Your task to perform on an android device: see tabs open on other devices in the chrome app Image 0: 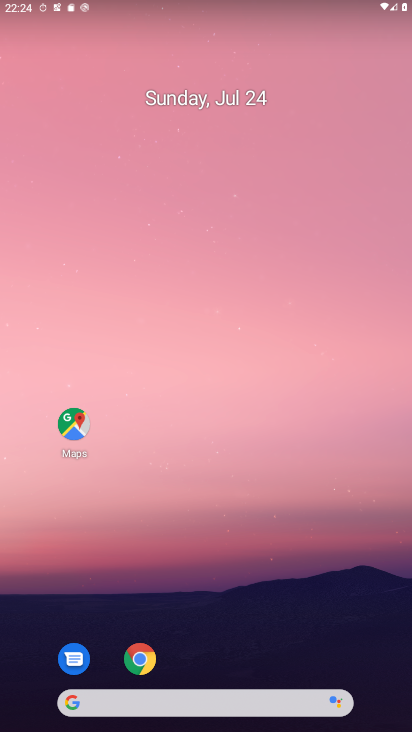
Step 0: drag from (265, 723) to (257, 129)
Your task to perform on an android device: see tabs open on other devices in the chrome app Image 1: 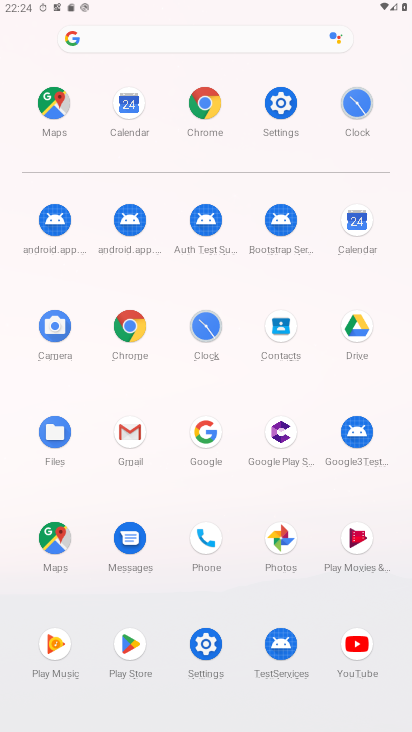
Step 1: click (126, 332)
Your task to perform on an android device: see tabs open on other devices in the chrome app Image 2: 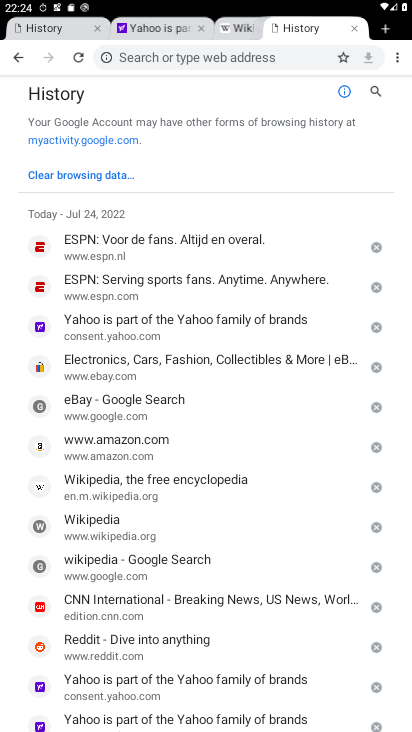
Step 2: click (397, 62)
Your task to perform on an android device: see tabs open on other devices in the chrome app Image 3: 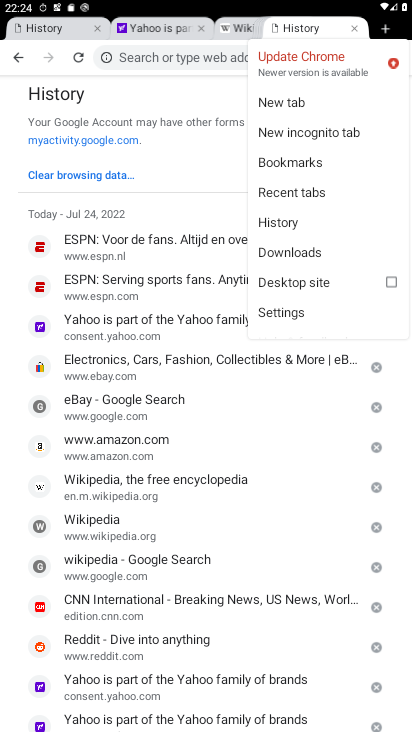
Step 3: click (295, 192)
Your task to perform on an android device: see tabs open on other devices in the chrome app Image 4: 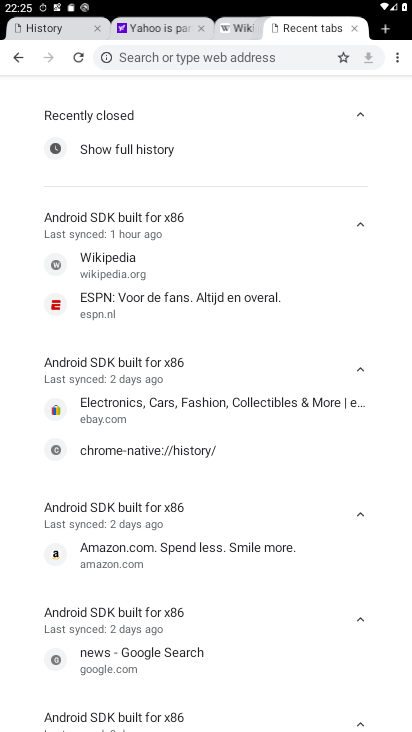
Step 4: task complete